Your task to perform on an android device: Open the stopwatch Image 0: 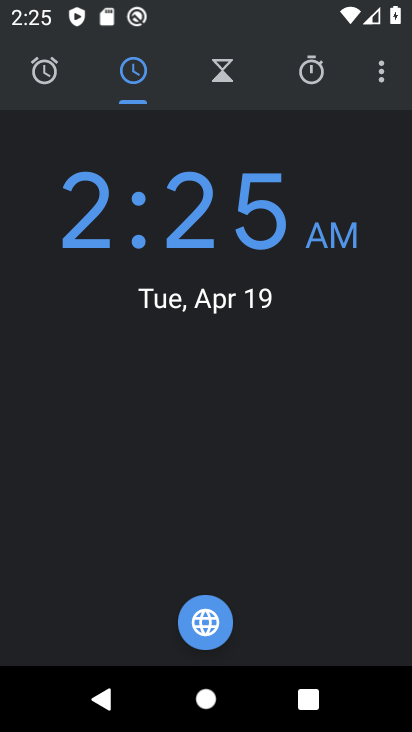
Step 0: click (328, 63)
Your task to perform on an android device: Open the stopwatch Image 1: 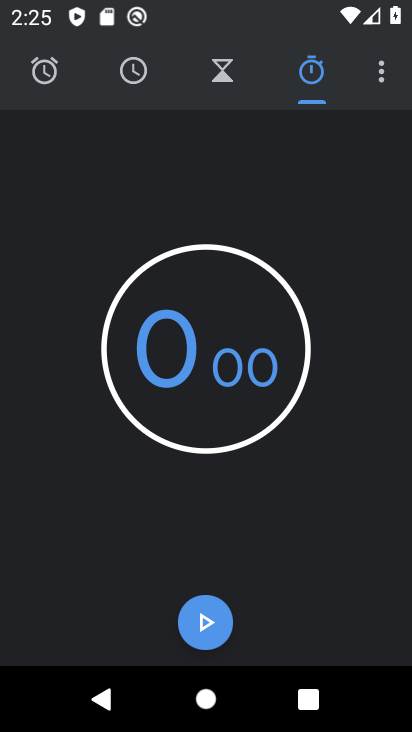
Step 1: task complete